Your task to perform on an android device: Open Youtube and go to "Your channel" Image 0: 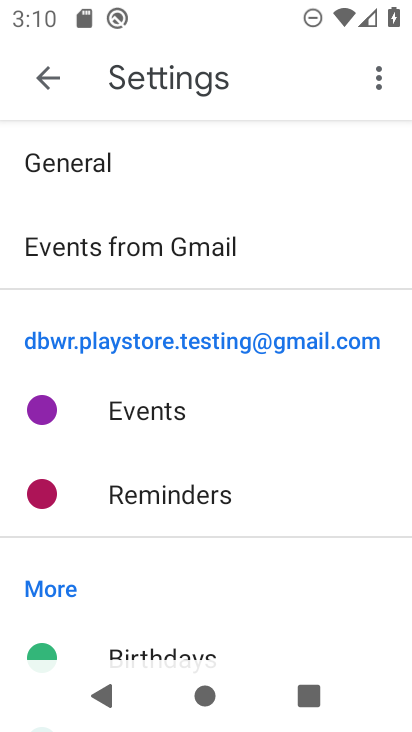
Step 0: press home button
Your task to perform on an android device: Open Youtube and go to "Your channel" Image 1: 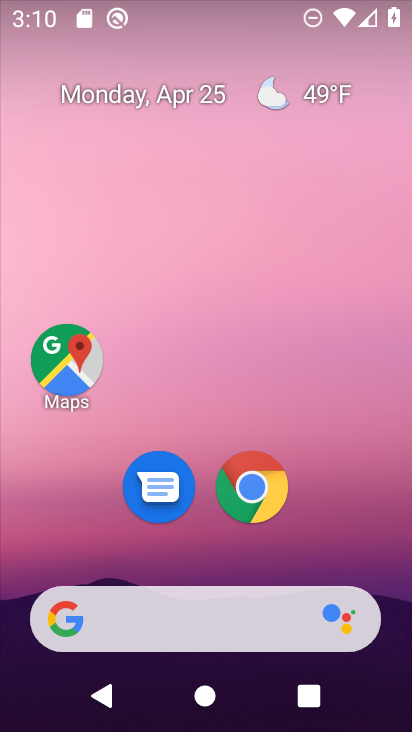
Step 1: drag from (385, 600) to (364, 7)
Your task to perform on an android device: Open Youtube and go to "Your channel" Image 2: 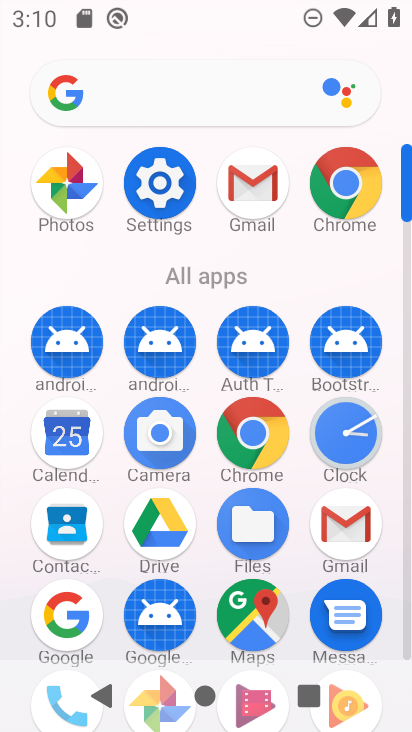
Step 2: drag from (410, 582) to (407, 531)
Your task to perform on an android device: Open Youtube and go to "Your channel" Image 3: 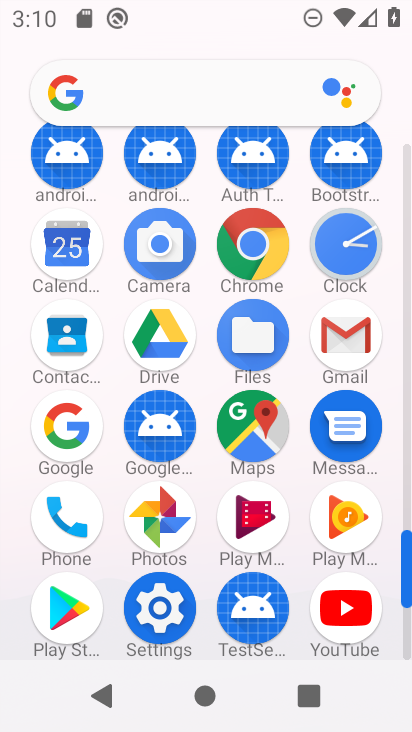
Step 3: click (352, 612)
Your task to perform on an android device: Open Youtube and go to "Your channel" Image 4: 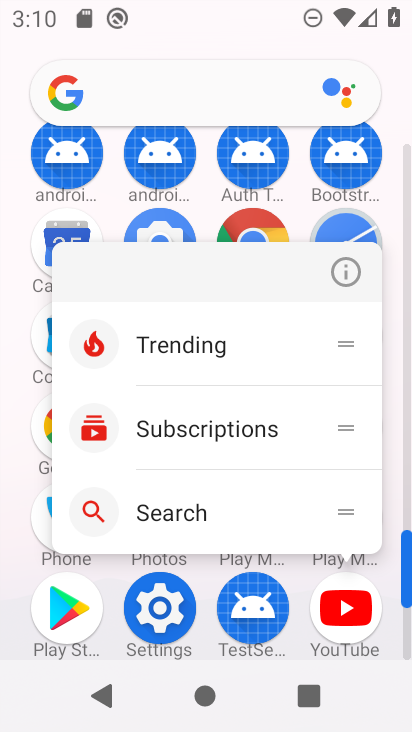
Step 4: click (347, 614)
Your task to perform on an android device: Open Youtube and go to "Your channel" Image 5: 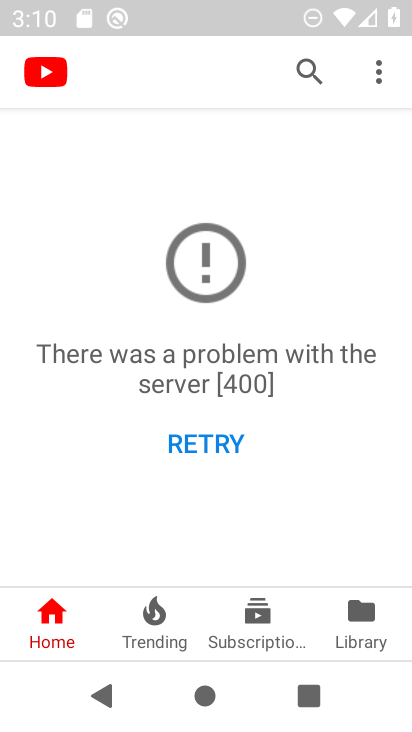
Step 5: click (377, 74)
Your task to perform on an android device: Open Youtube and go to "Your channel" Image 6: 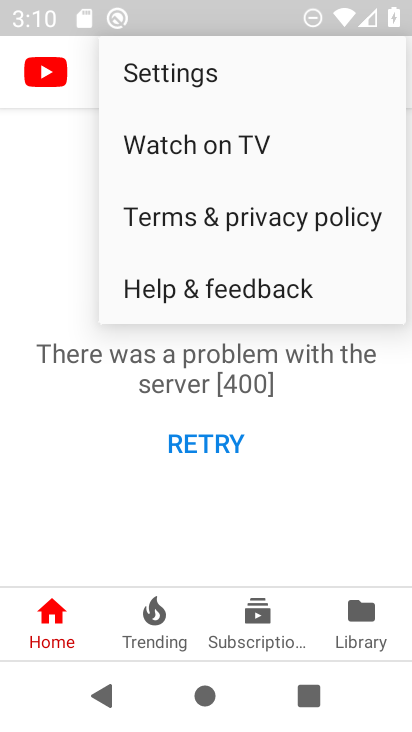
Step 6: click (361, 623)
Your task to perform on an android device: Open Youtube and go to "Your channel" Image 7: 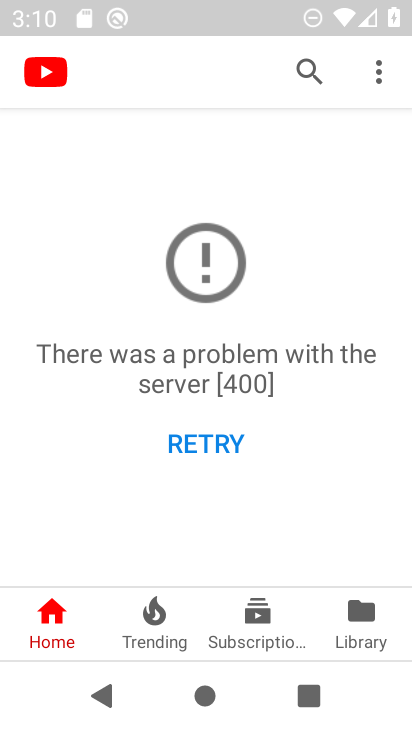
Step 7: click (361, 633)
Your task to perform on an android device: Open Youtube and go to "Your channel" Image 8: 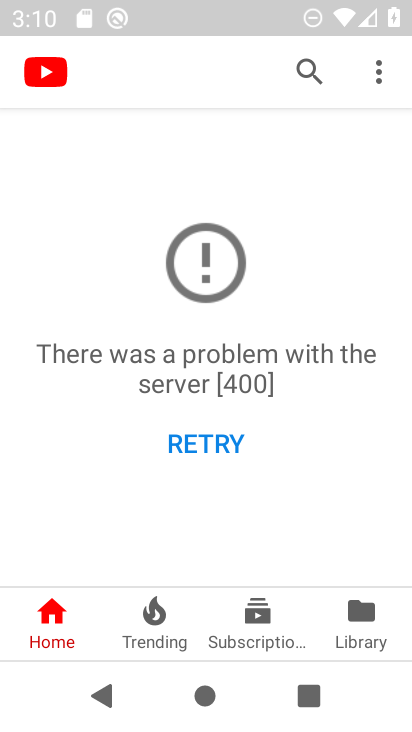
Step 8: task complete